Your task to perform on an android device: set the timer Image 0: 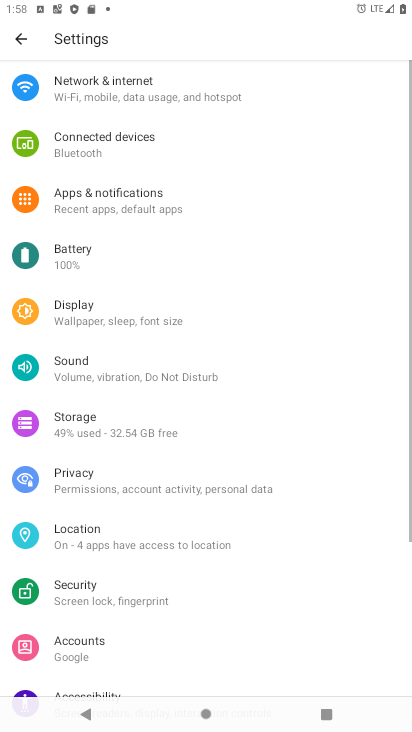
Step 0: press home button
Your task to perform on an android device: set the timer Image 1: 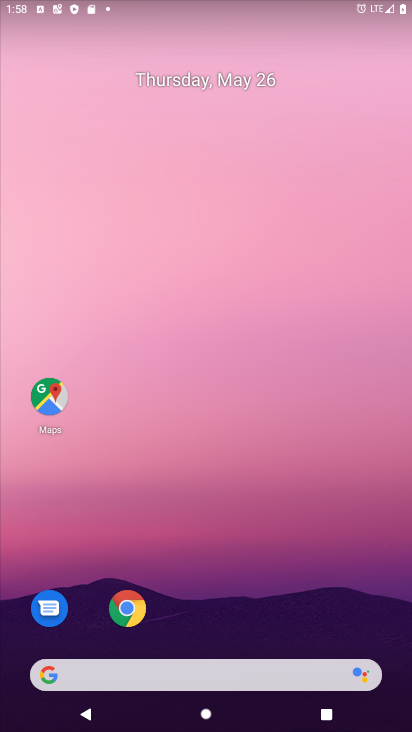
Step 1: drag from (378, 626) to (294, 190)
Your task to perform on an android device: set the timer Image 2: 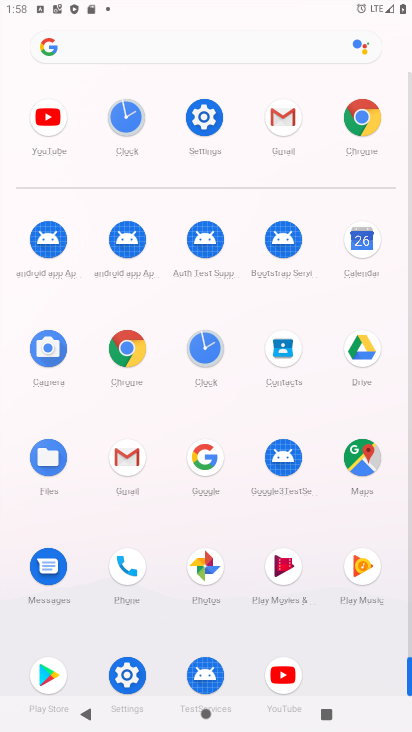
Step 2: click (207, 347)
Your task to perform on an android device: set the timer Image 3: 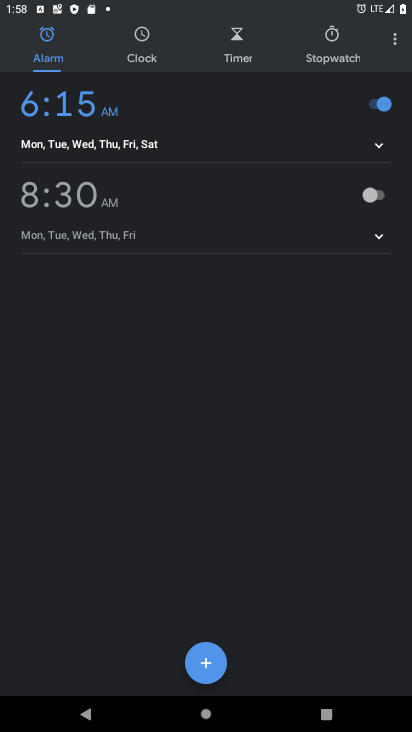
Step 3: click (235, 41)
Your task to perform on an android device: set the timer Image 4: 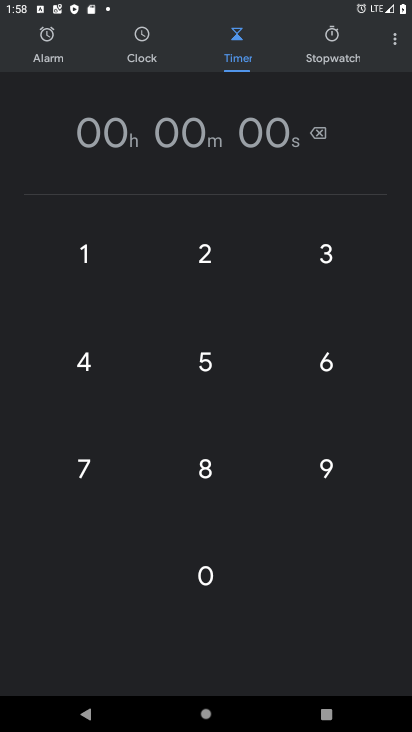
Step 4: click (77, 259)
Your task to perform on an android device: set the timer Image 5: 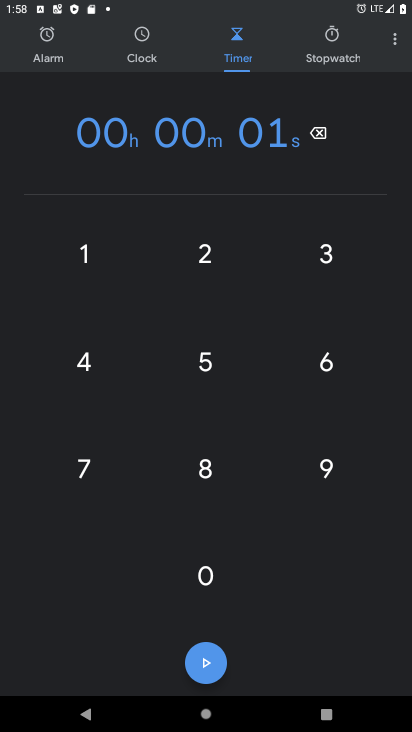
Step 5: click (329, 256)
Your task to perform on an android device: set the timer Image 6: 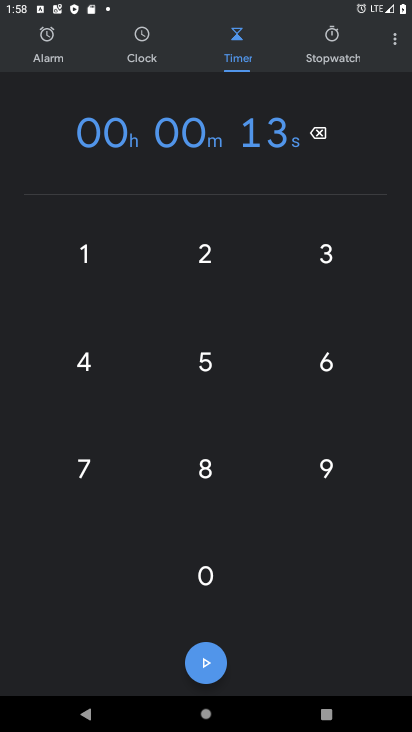
Step 6: click (210, 585)
Your task to perform on an android device: set the timer Image 7: 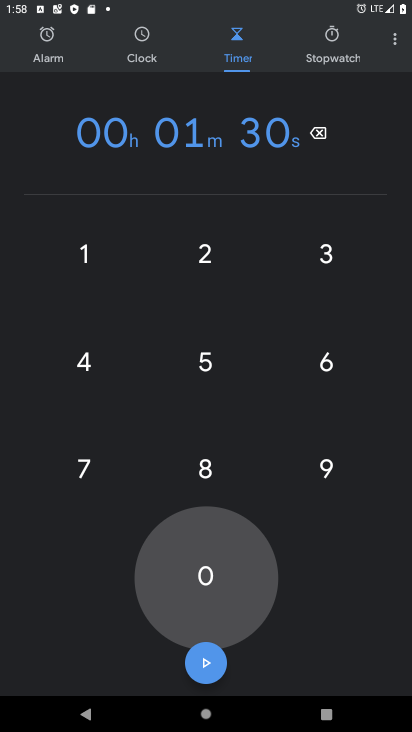
Step 7: click (210, 585)
Your task to perform on an android device: set the timer Image 8: 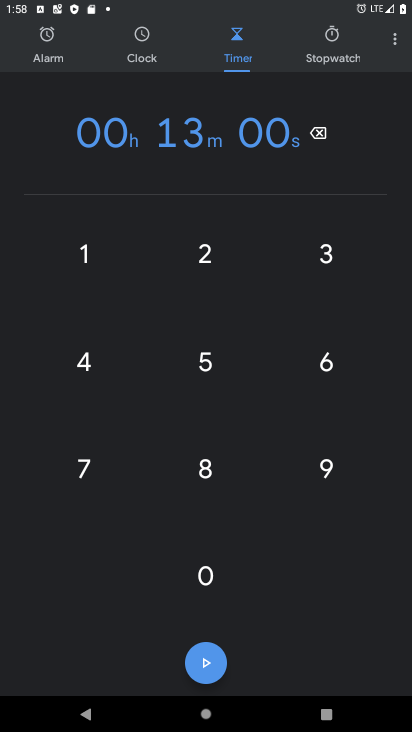
Step 8: click (210, 585)
Your task to perform on an android device: set the timer Image 9: 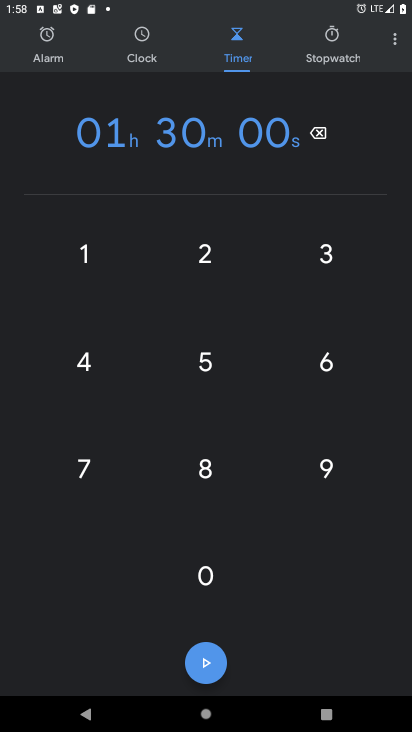
Step 9: task complete